Your task to perform on an android device: open the mobile data screen to see how much data has been used Image 0: 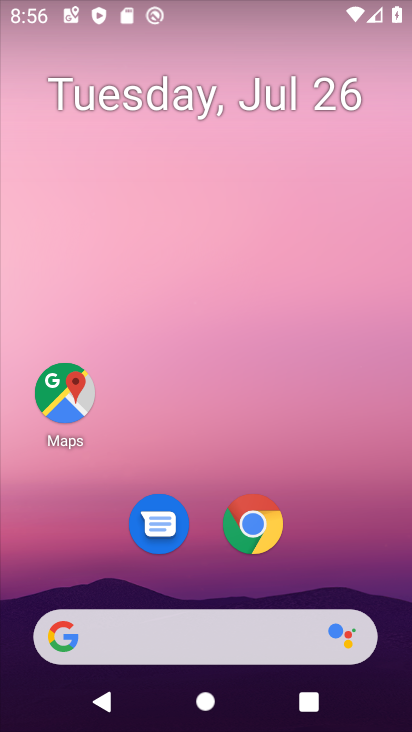
Step 0: press home button
Your task to perform on an android device: open the mobile data screen to see how much data has been used Image 1: 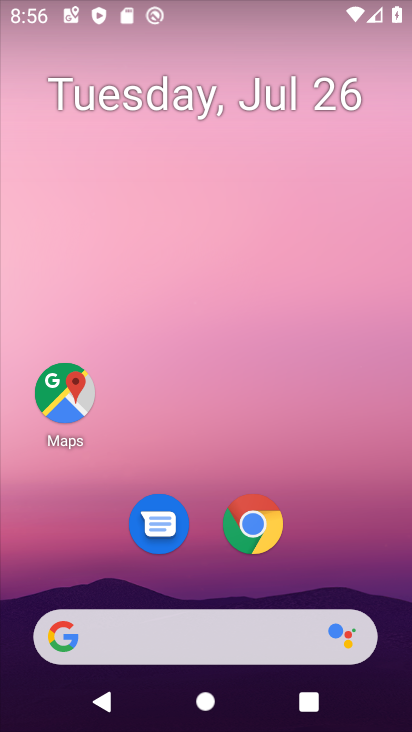
Step 1: drag from (192, 646) to (289, 242)
Your task to perform on an android device: open the mobile data screen to see how much data has been used Image 2: 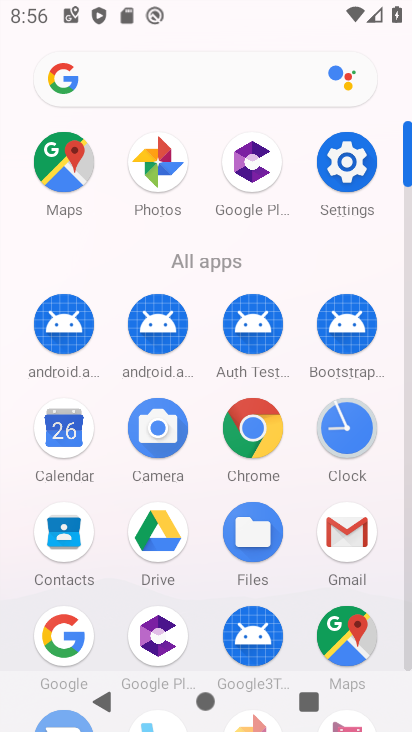
Step 2: click (342, 170)
Your task to perform on an android device: open the mobile data screen to see how much data has been used Image 3: 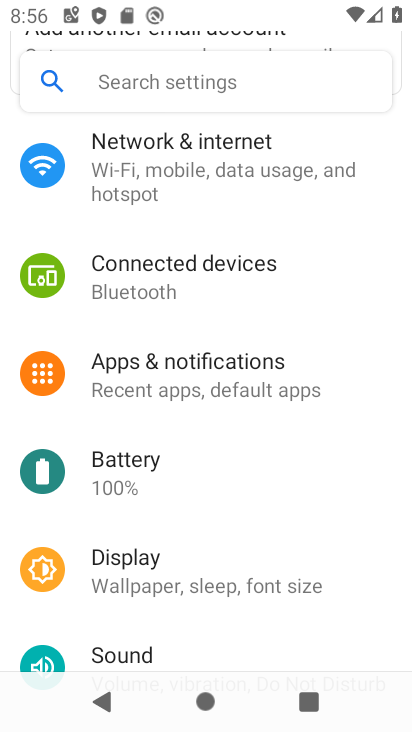
Step 3: drag from (350, 203) to (266, 585)
Your task to perform on an android device: open the mobile data screen to see how much data has been used Image 4: 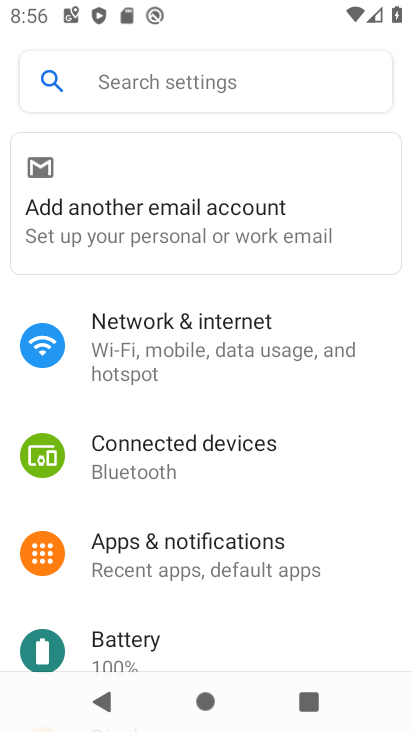
Step 4: click (239, 329)
Your task to perform on an android device: open the mobile data screen to see how much data has been used Image 5: 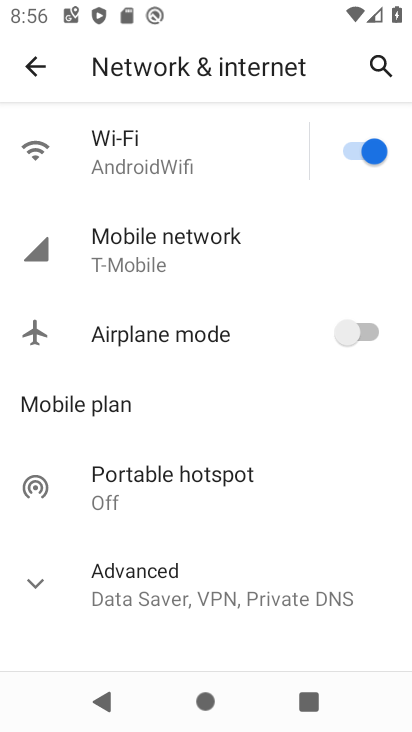
Step 5: click (182, 247)
Your task to perform on an android device: open the mobile data screen to see how much data has been used Image 6: 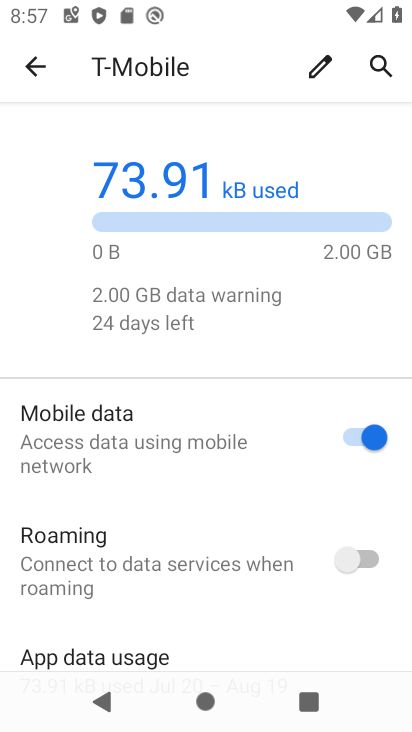
Step 6: task complete